Your task to perform on an android device: change your default location settings in chrome Image 0: 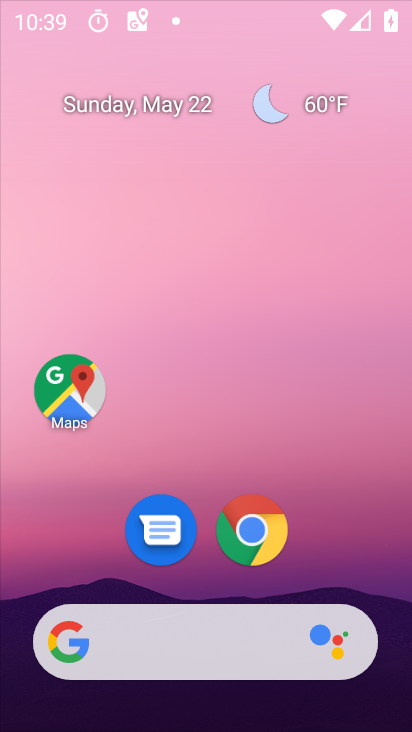
Step 0: click (360, 275)
Your task to perform on an android device: change your default location settings in chrome Image 1: 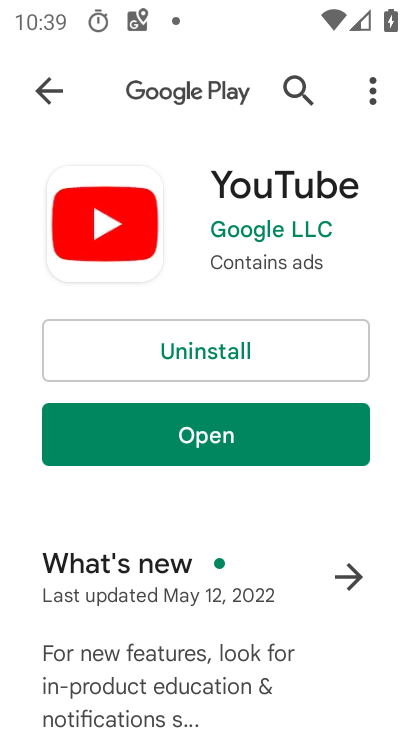
Step 1: press home button
Your task to perform on an android device: change your default location settings in chrome Image 2: 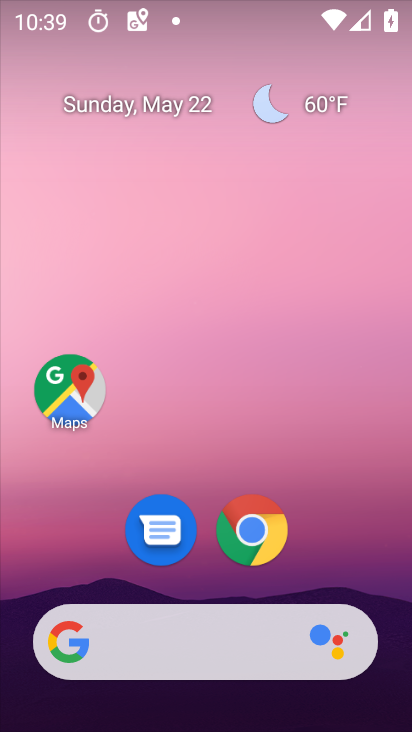
Step 2: click (238, 534)
Your task to perform on an android device: change your default location settings in chrome Image 3: 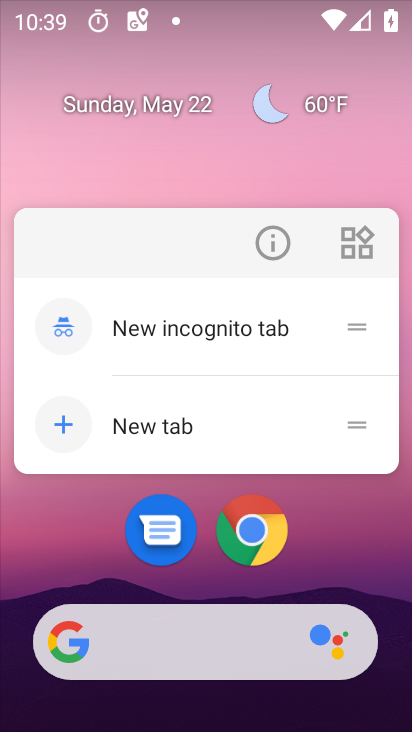
Step 3: click (255, 522)
Your task to perform on an android device: change your default location settings in chrome Image 4: 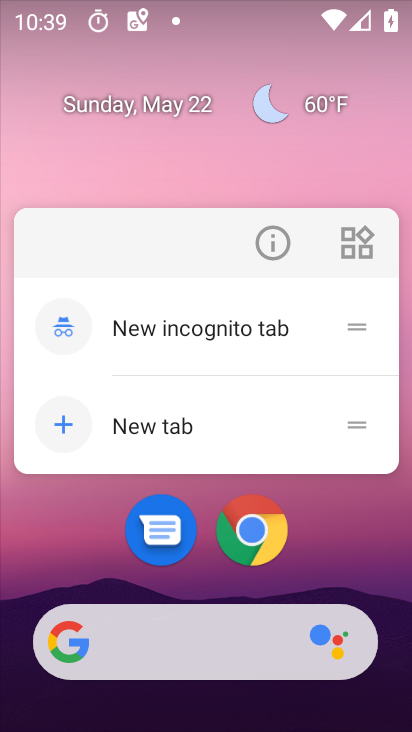
Step 4: click (252, 551)
Your task to perform on an android device: change your default location settings in chrome Image 5: 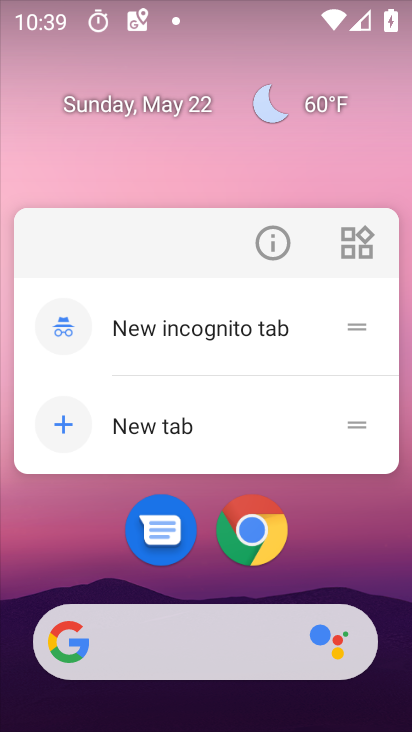
Step 5: click (252, 551)
Your task to perform on an android device: change your default location settings in chrome Image 6: 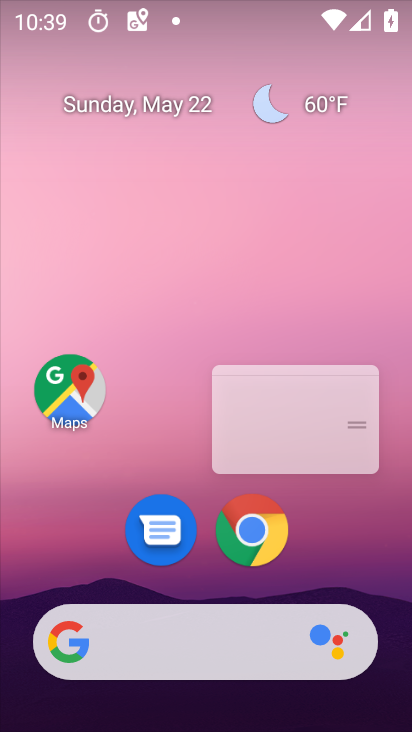
Step 6: click (252, 551)
Your task to perform on an android device: change your default location settings in chrome Image 7: 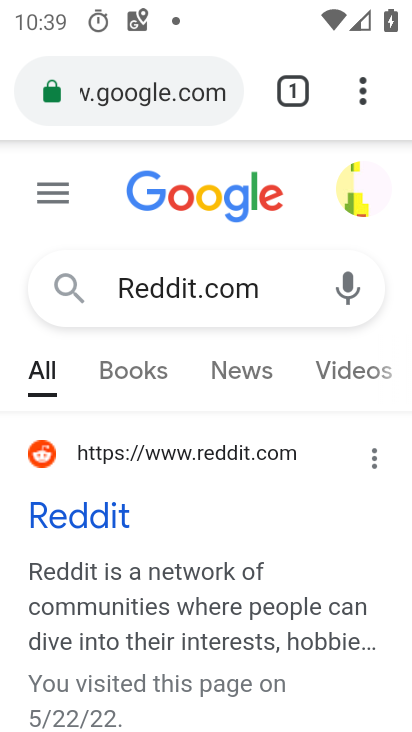
Step 7: click (352, 89)
Your task to perform on an android device: change your default location settings in chrome Image 8: 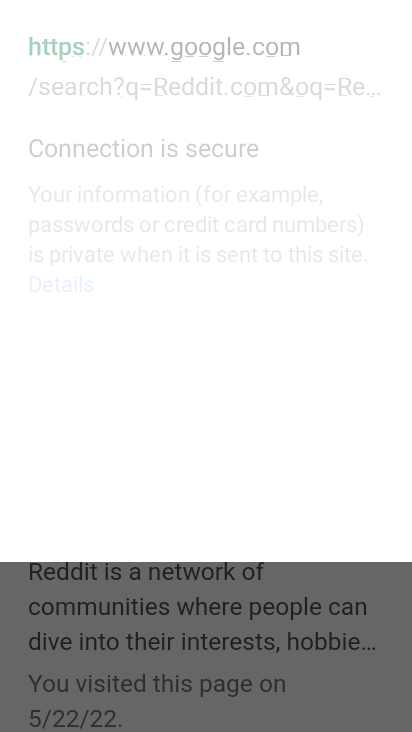
Step 8: click (356, 89)
Your task to perform on an android device: change your default location settings in chrome Image 9: 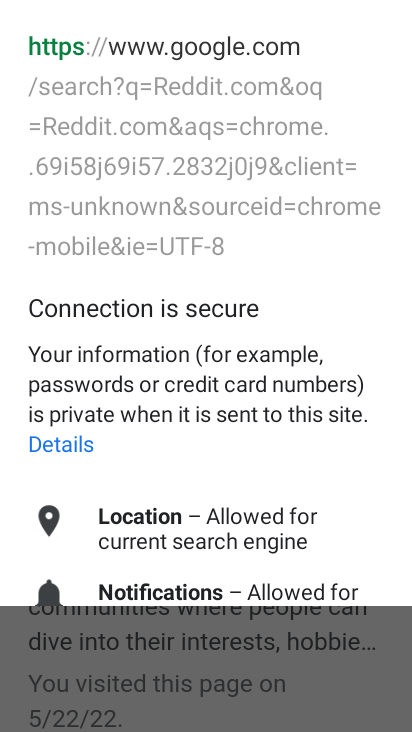
Step 9: press back button
Your task to perform on an android device: change your default location settings in chrome Image 10: 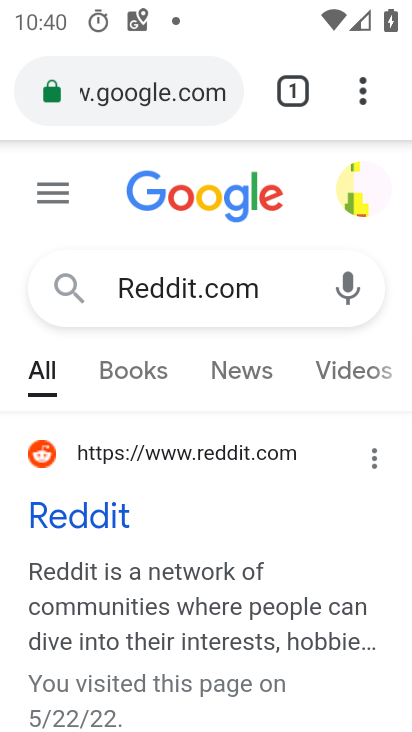
Step 10: click (365, 89)
Your task to perform on an android device: change your default location settings in chrome Image 11: 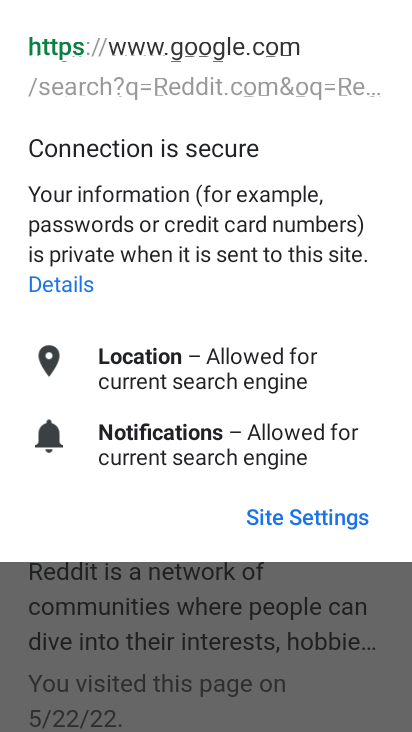
Step 11: press back button
Your task to perform on an android device: change your default location settings in chrome Image 12: 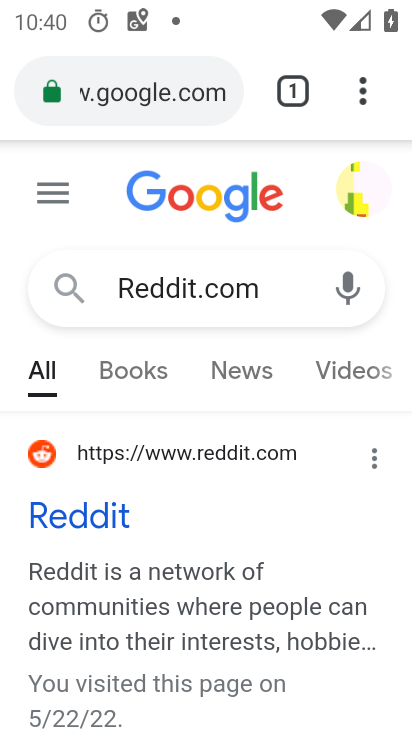
Step 12: click (362, 107)
Your task to perform on an android device: change your default location settings in chrome Image 13: 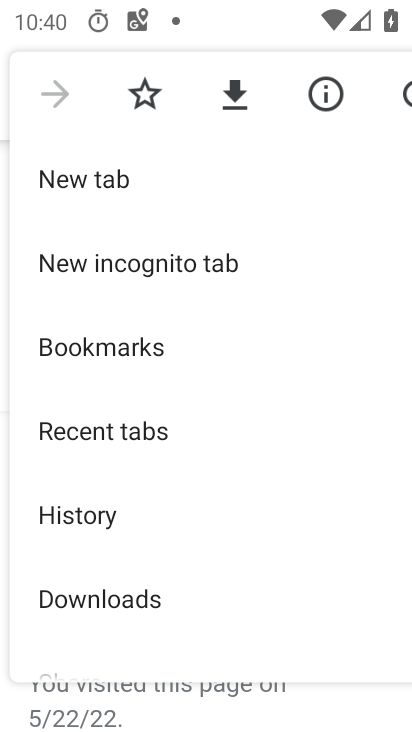
Step 13: drag from (169, 578) to (388, 201)
Your task to perform on an android device: change your default location settings in chrome Image 14: 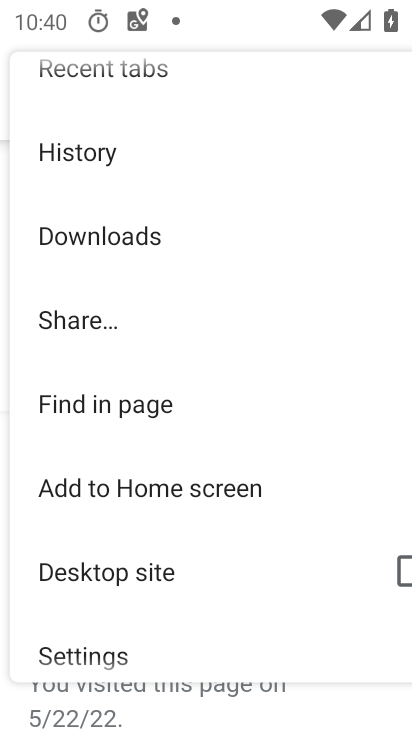
Step 14: click (81, 654)
Your task to perform on an android device: change your default location settings in chrome Image 15: 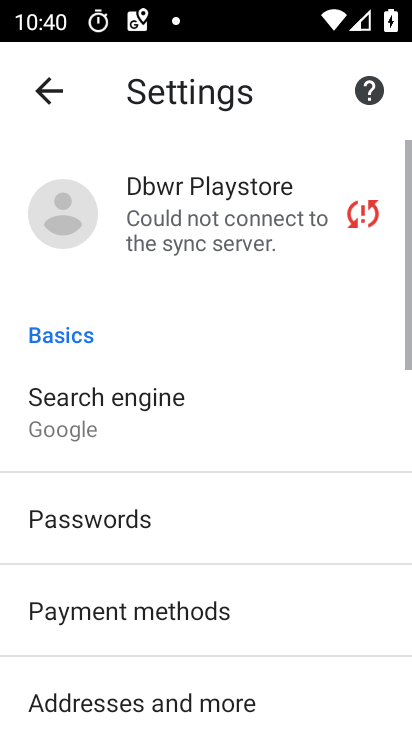
Step 15: click (81, 654)
Your task to perform on an android device: change your default location settings in chrome Image 16: 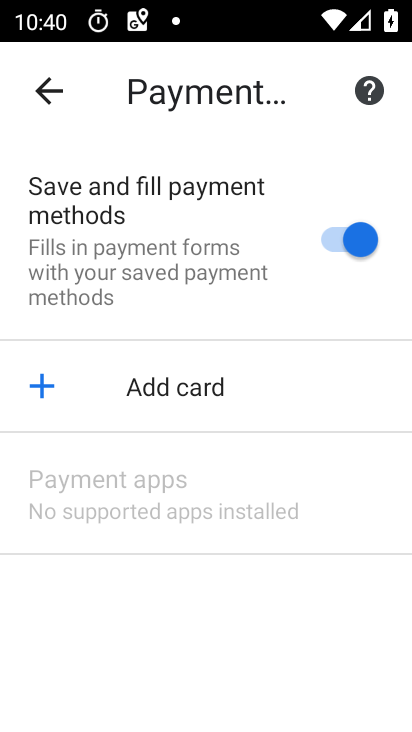
Step 16: click (49, 96)
Your task to perform on an android device: change your default location settings in chrome Image 17: 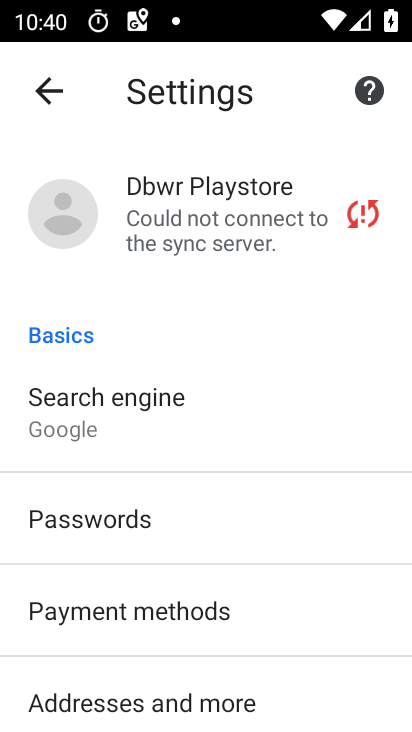
Step 17: drag from (147, 654) to (332, 247)
Your task to perform on an android device: change your default location settings in chrome Image 18: 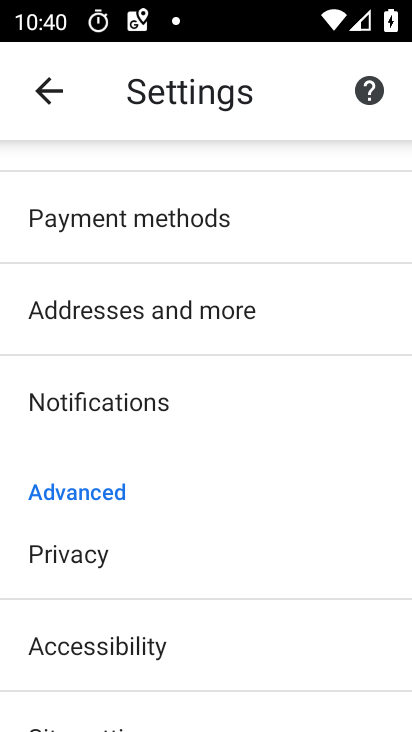
Step 18: drag from (113, 661) to (346, 246)
Your task to perform on an android device: change your default location settings in chrome Image 19: 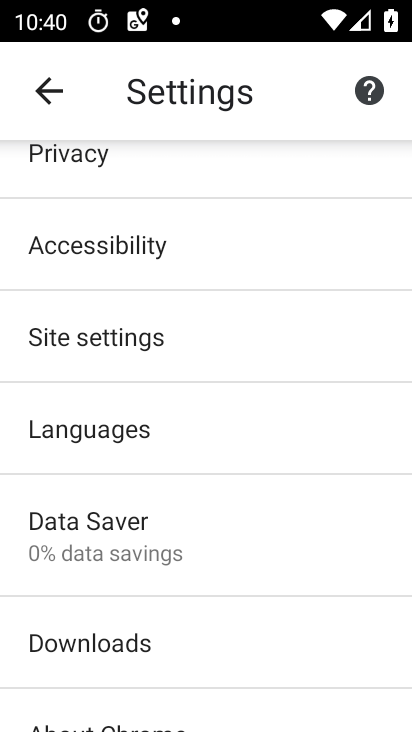
Step 19: click (101, 332)
Your task to perform on an android device: change your default location settings in chrome Image 20: 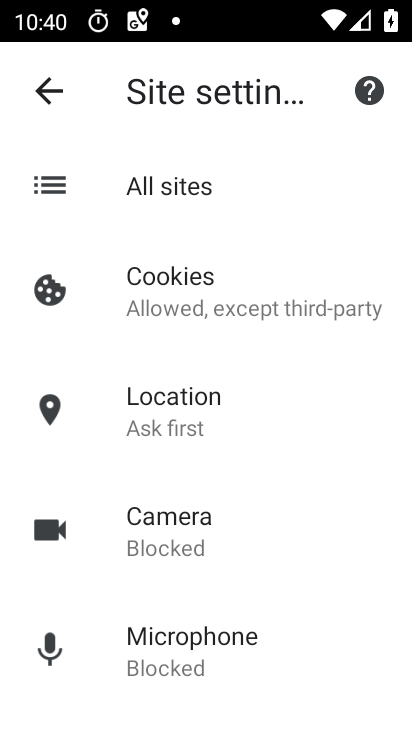
Step 20: click (133, 414)
Your task to perform on an android device: change your default location settings in chrome Image 21: 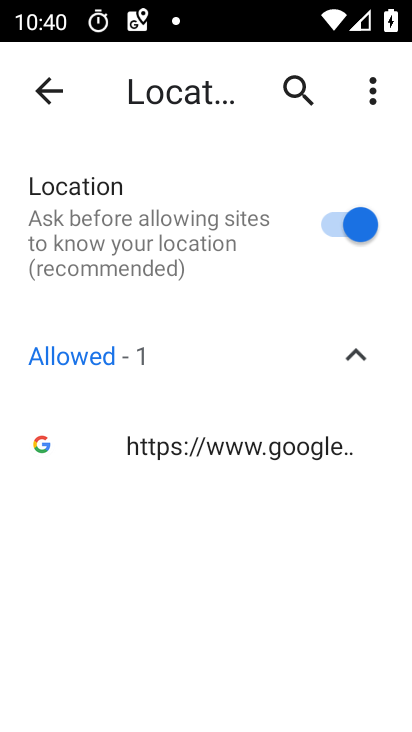
Step 21: task complete